Your task to perform on an android device: Go to Google Image 0: 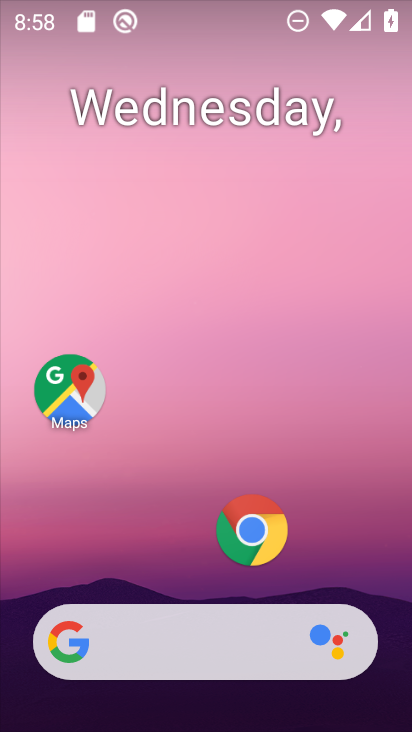
Step 0: drag from (173, 592) to (260, 52)
Your task to perform on an android device: Go to Google Image 1: 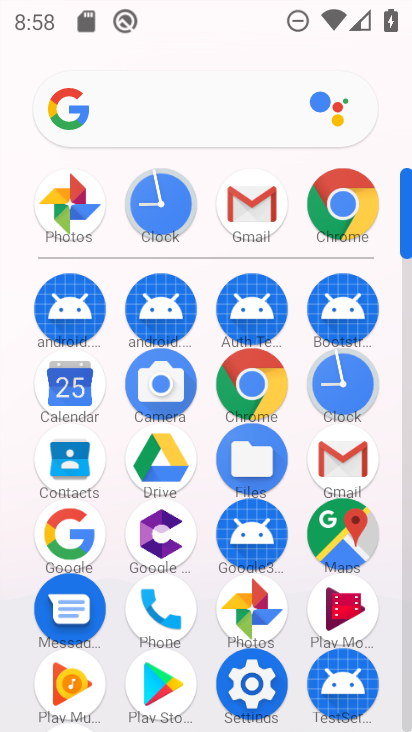
Step 1: click (55, 530)
Your task to perform on an android device: Go to Google Image 2: 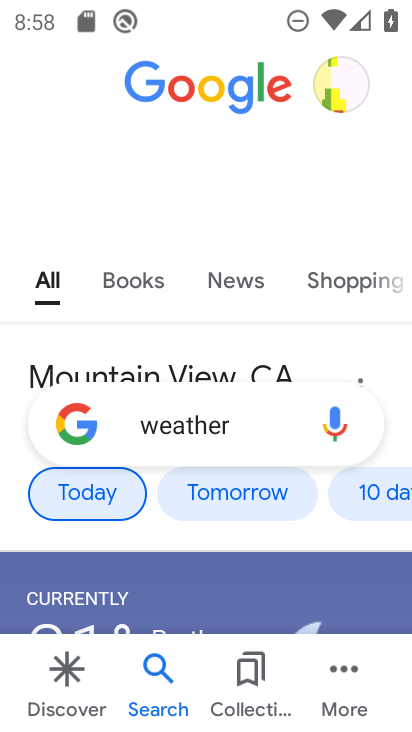
Step 2: task complete